Your task to perform on an android device: See recent photos Image 0: 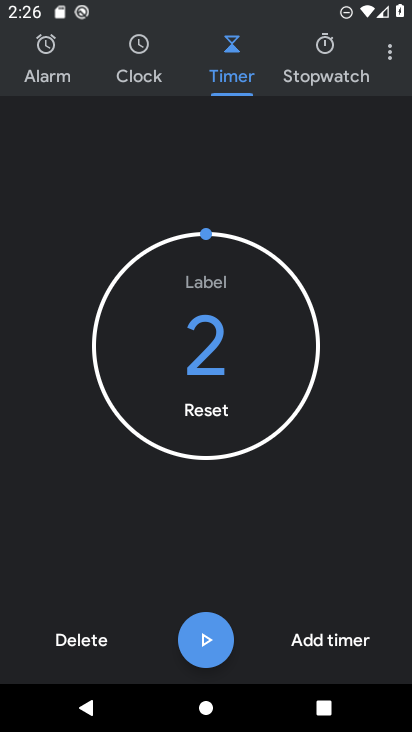
Step 0: press home button
Your task to perform on an android device: See recent photos Image 1: 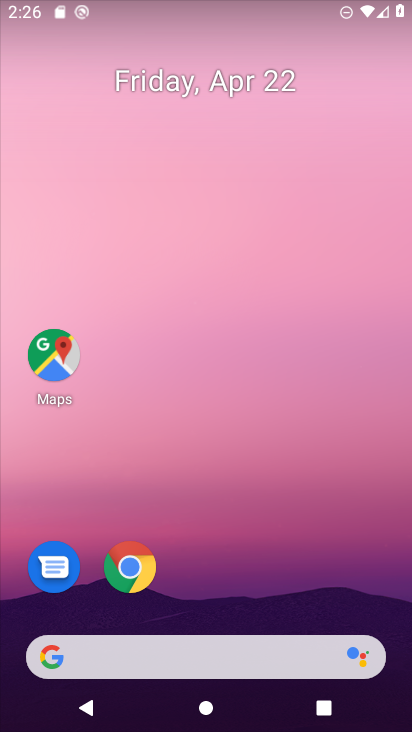
Step 1: drag from (255, 584) to (230, 110)
Your task to perform on an android device: See recent photos Image 2: 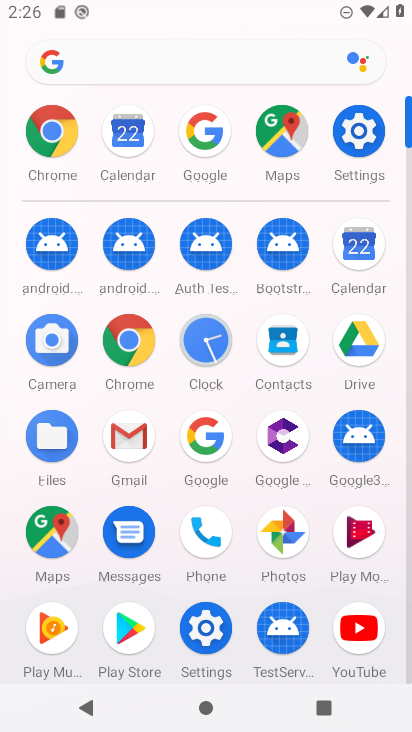
Step 2: click (286, 516)
Your task to perform on an android device: See recent photos Image 3: 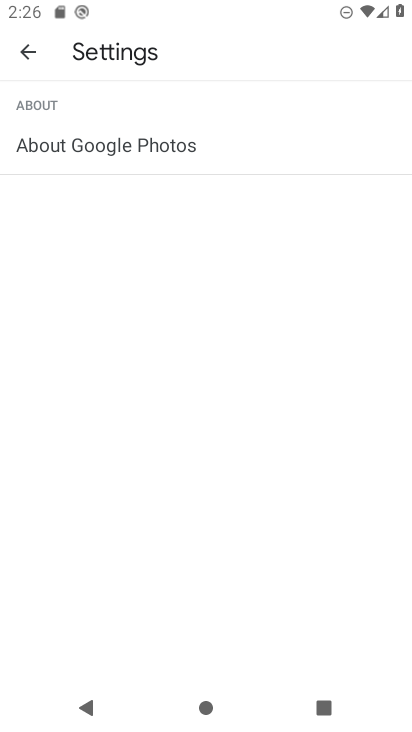
Step 3: click (24, 44)
Your task to perform on an android device: See recent photos Image 4: 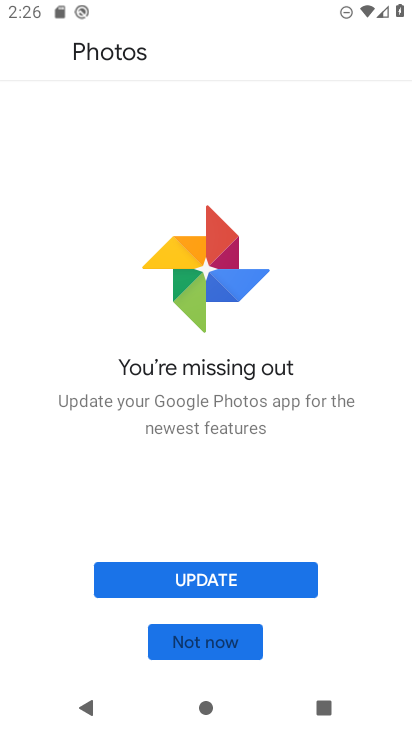
Step 4: click (84, 198)
Your task to perform on an android device: See recent photos Image 5: 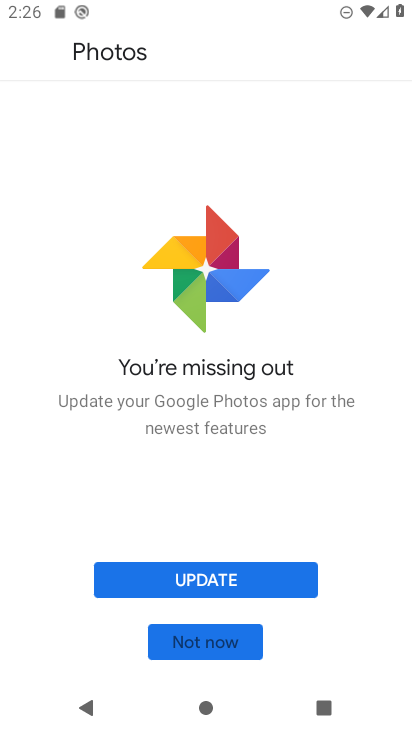
Step 5: click (208, 641)
Your task to perform on an android device: See recent photos Image 6: 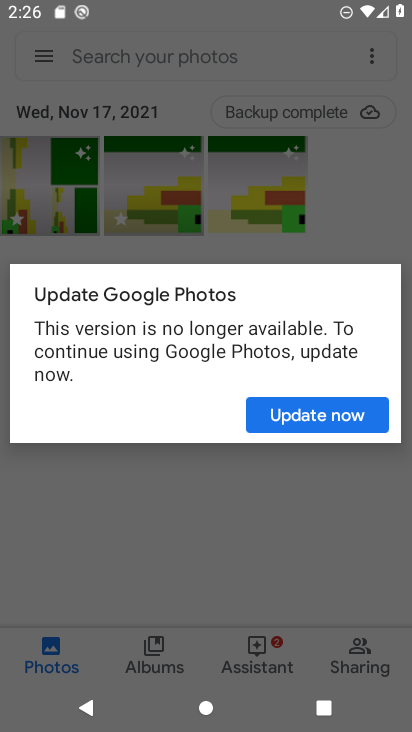
Step 6: click (76, 203)
Your task to perform on an android device: See recent photos Image 7: 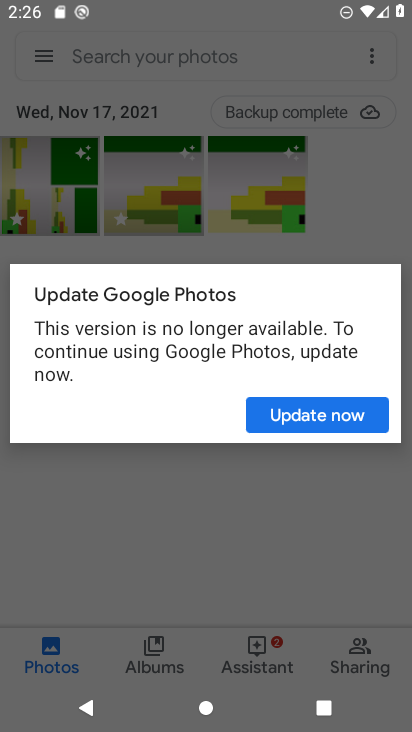
Step 7: click (311, 409)
Your task to perform on an android device: See recent photos Image 8: 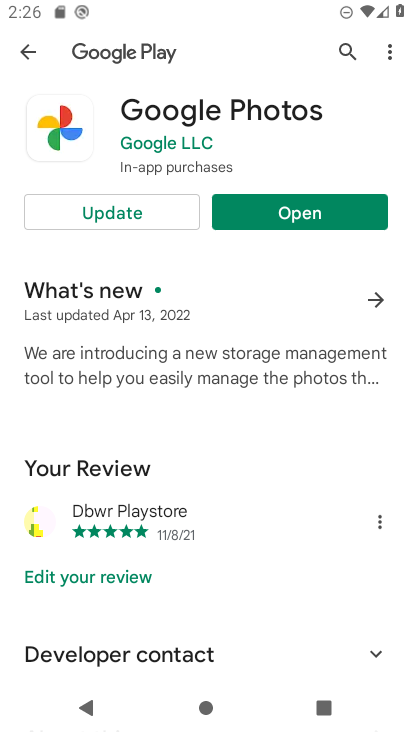
Step 8: click (182, 214)
Your task to perform on an android device: See recent photos Image 9: 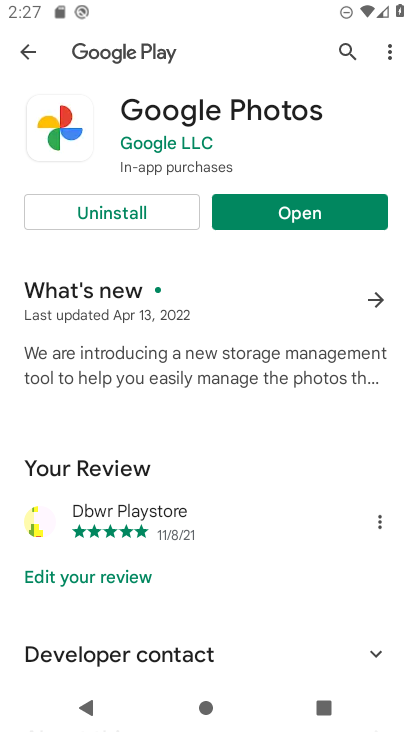
Step 9: click (302, 213)
Your task to perform on an android device: See recent photos Image 10: 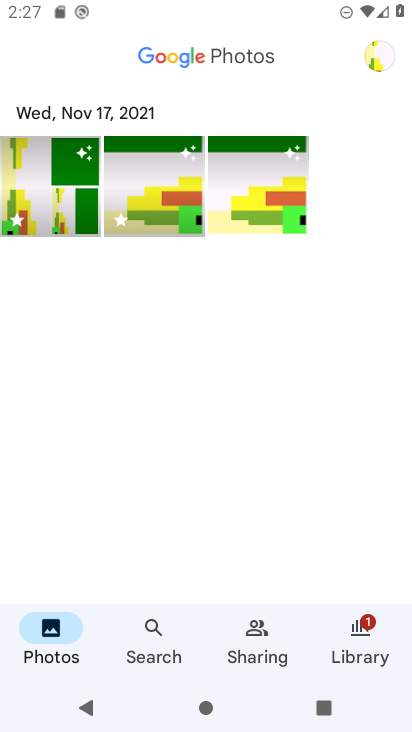
Step 10: click (71, 171)
Your task to perform on an android device: See recent photos Image 11: 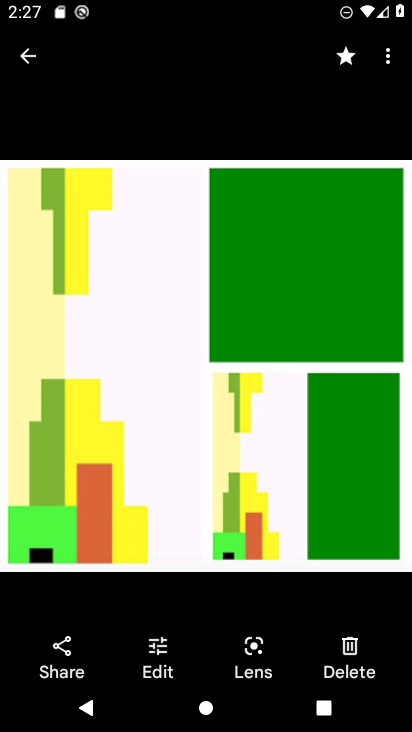
Step 11: task complete